Your task to perform on an android device: toggle notification dots Image 0: 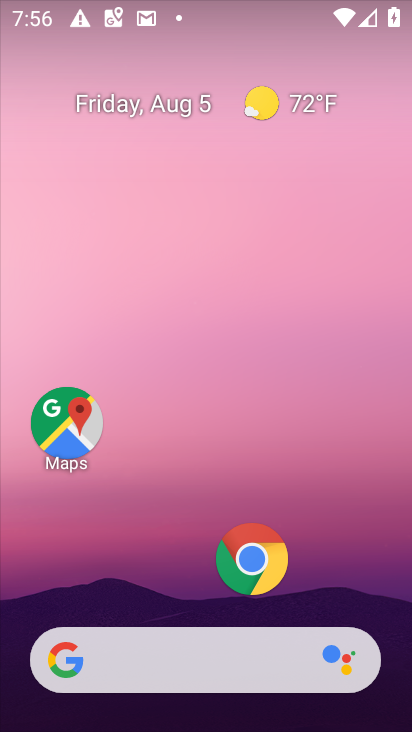
Step 0: drag from (153, 604) to (137, 3)
Your task to perform on an android device: toggle notification dots Image 1: 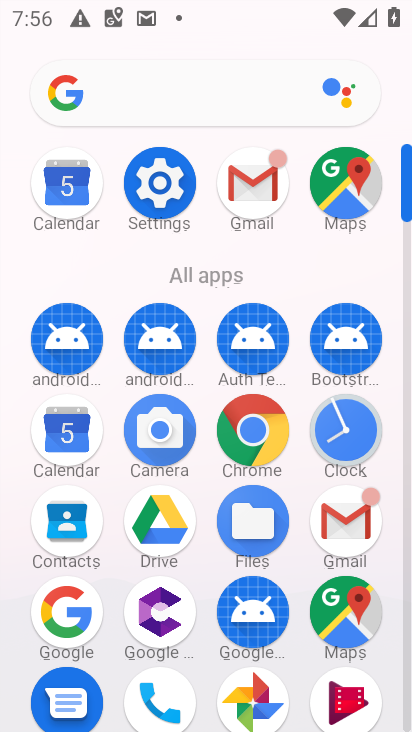
Step 1: click (153, 199)
Your task to perform on an android device: toggle notification dots Image 2: 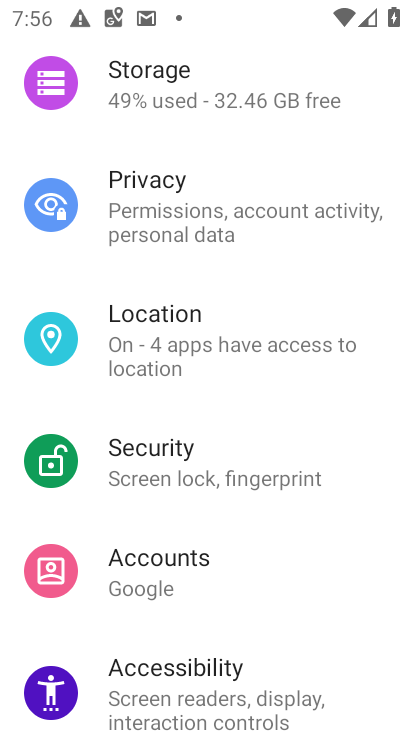
Step 2: drag from (238, 168) to (235, 581)
Your task to perform on an android device: toggle notification dots Image 3: 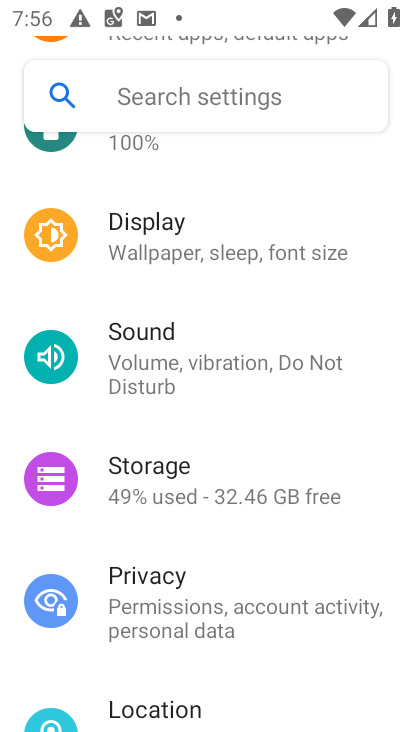
Step 3: drag from (206, 234) to (200, 660)
Your task to perform on an android device: toggle notification dots Image 4: 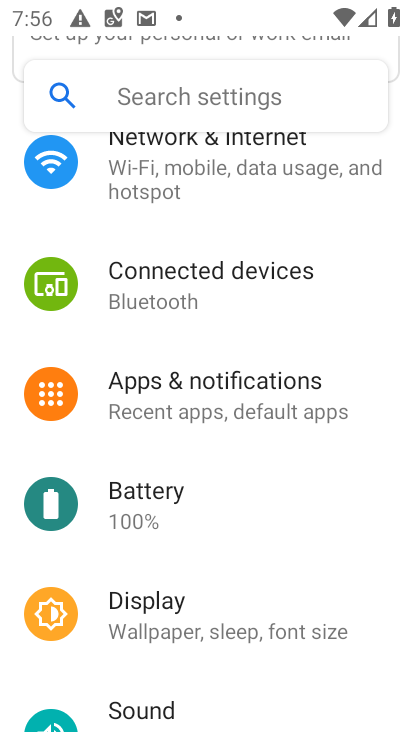
Step 4: click (194, 404)
Your task to perform on an android device: toggle notification dots Image 5: 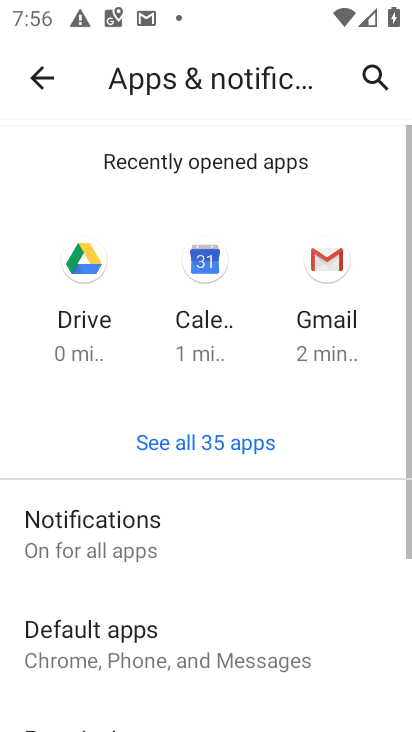
Step 5: drag from (179, 606) to (212, 217)
Your task to perform on an android device: toggle notification dots Image 6: 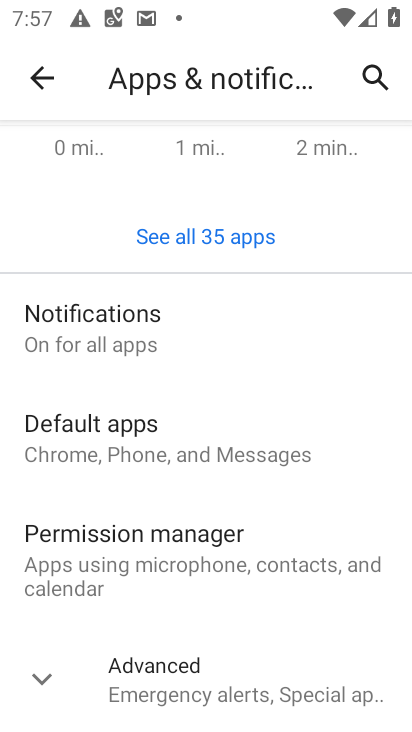
Step 6: click (68, 318)
Your task to perform on an android device: toggle notification dots Image 7: 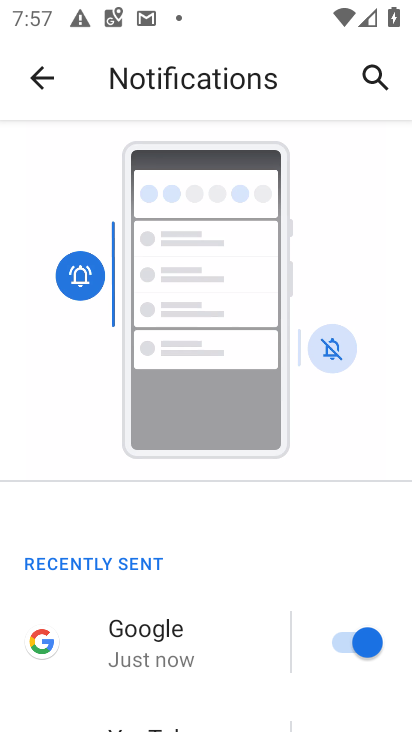
Step 7: drag from (147, 589) to (210, 179)
Your task to perform on an android device: toggle notification dots Image 8: 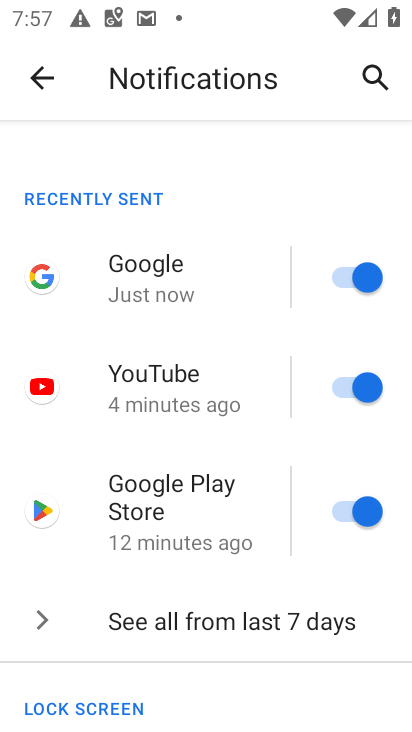
Step 8: drag from (207, 540) to (226, 106)
Your task to perform on an android device: toggle notification dots Image 9: 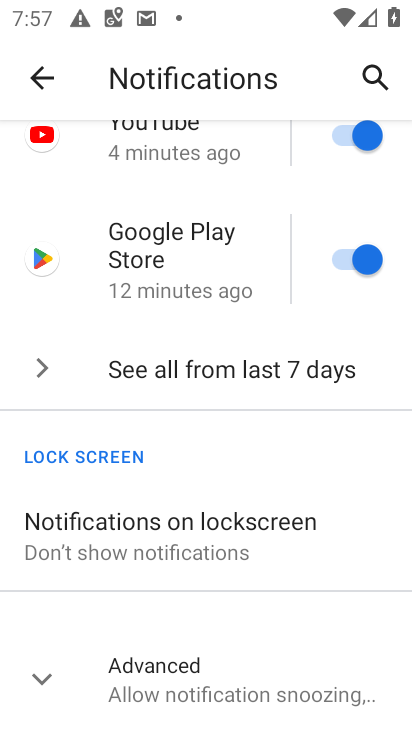
Step 9: click (146, 536)
Your task to perform on an android device: toggle notification dots Image 10: 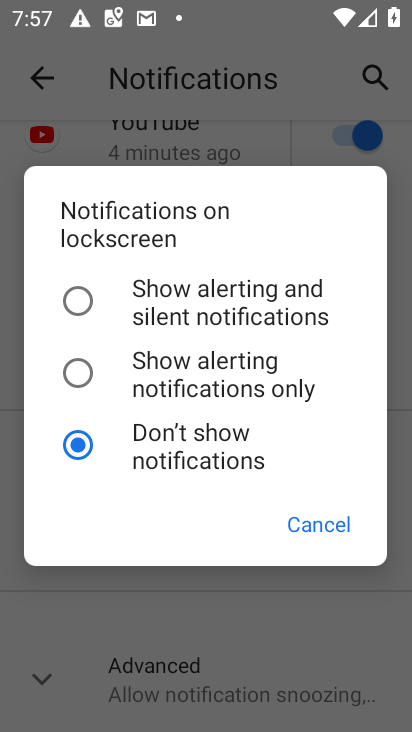
Step 10: click (158, 619)
Your task to perform on an android device: toggle notification dots Image 11: 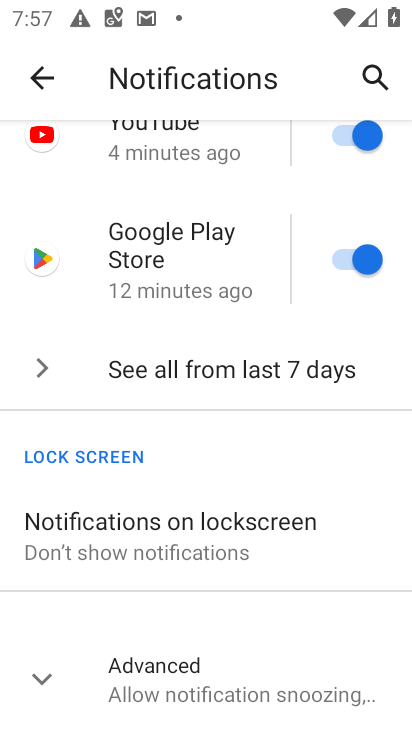
Step 11: click (109, 691)
Your task to perform on an android device: toggle notification dots Image 12: 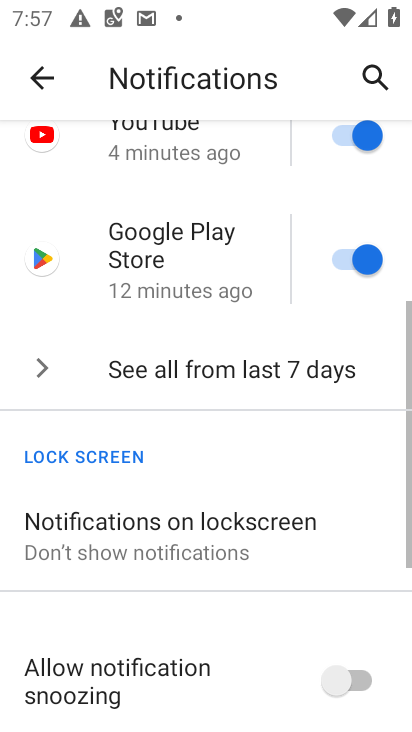
Step 12: drag from (142, 676) to (168, 210)
Your task to perform on an android device: toggle notification dots Image 13: 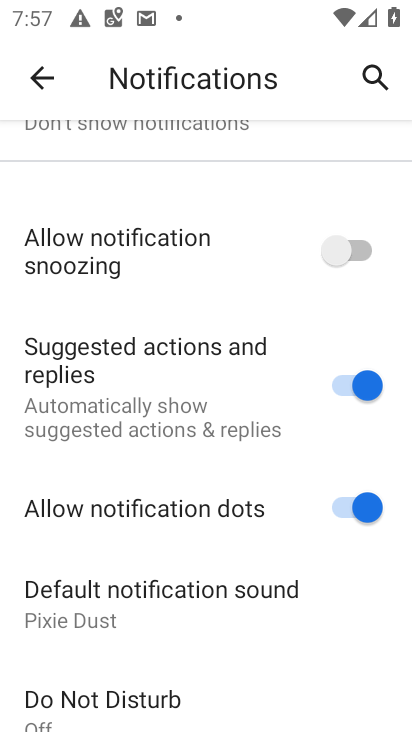
Step 13: click (327, 508)
Your task to perform on an android device: toggle notification dots Image 14: 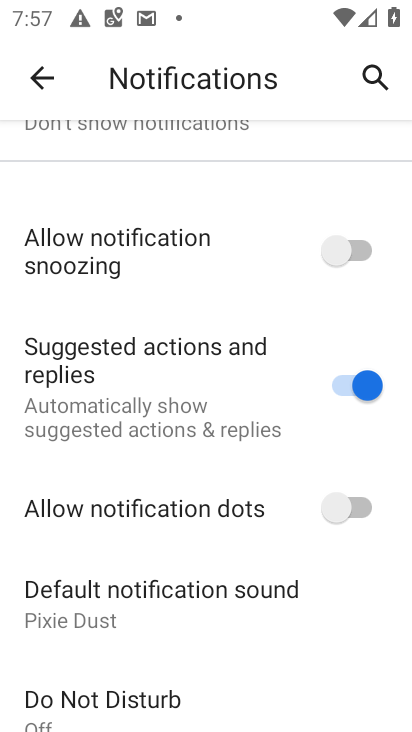
Step 14: task complete